Your task to perform on an android device: change the clock display to show seconds Image 0: 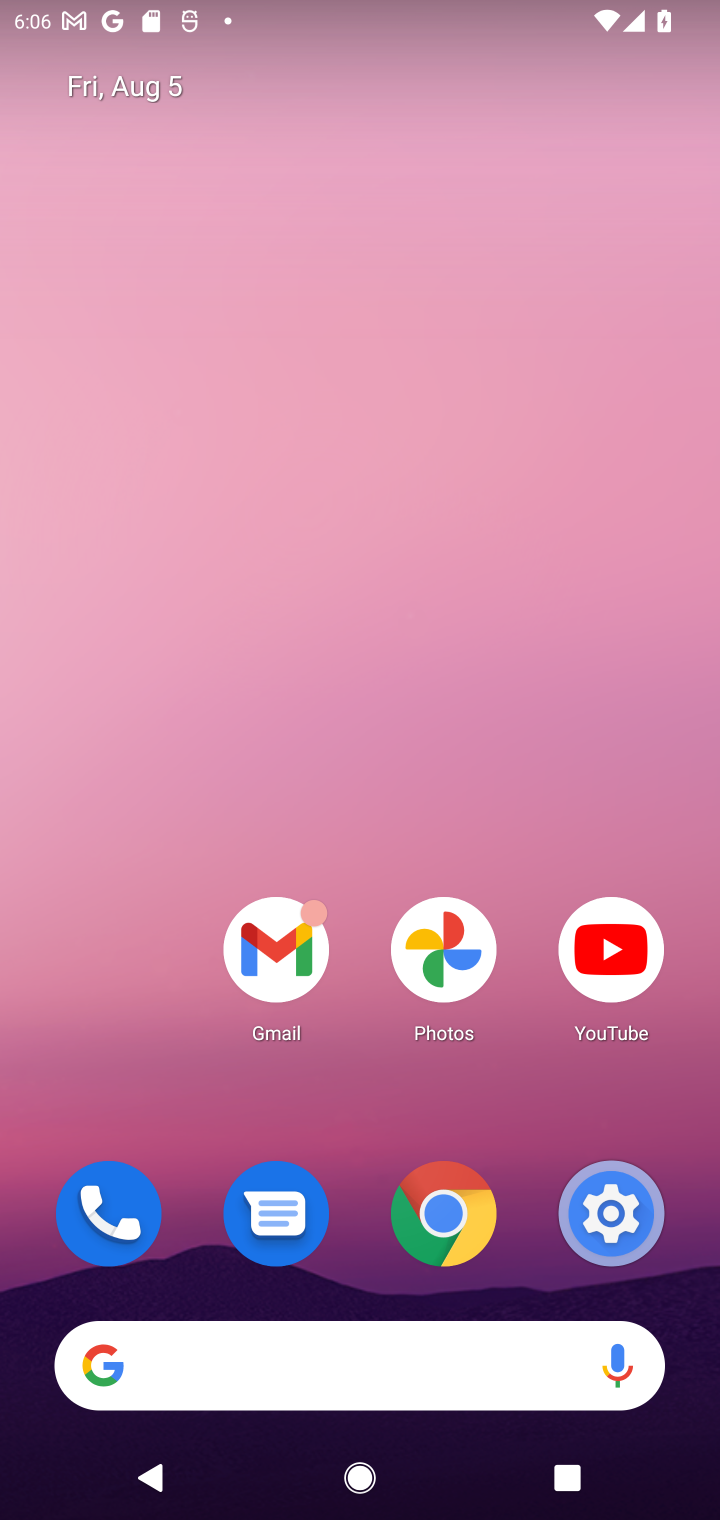
Step 0: drag from (362, 1294) to (366, 255)
Your task to perform on an android device: change the clock display to show seconds Image 1: 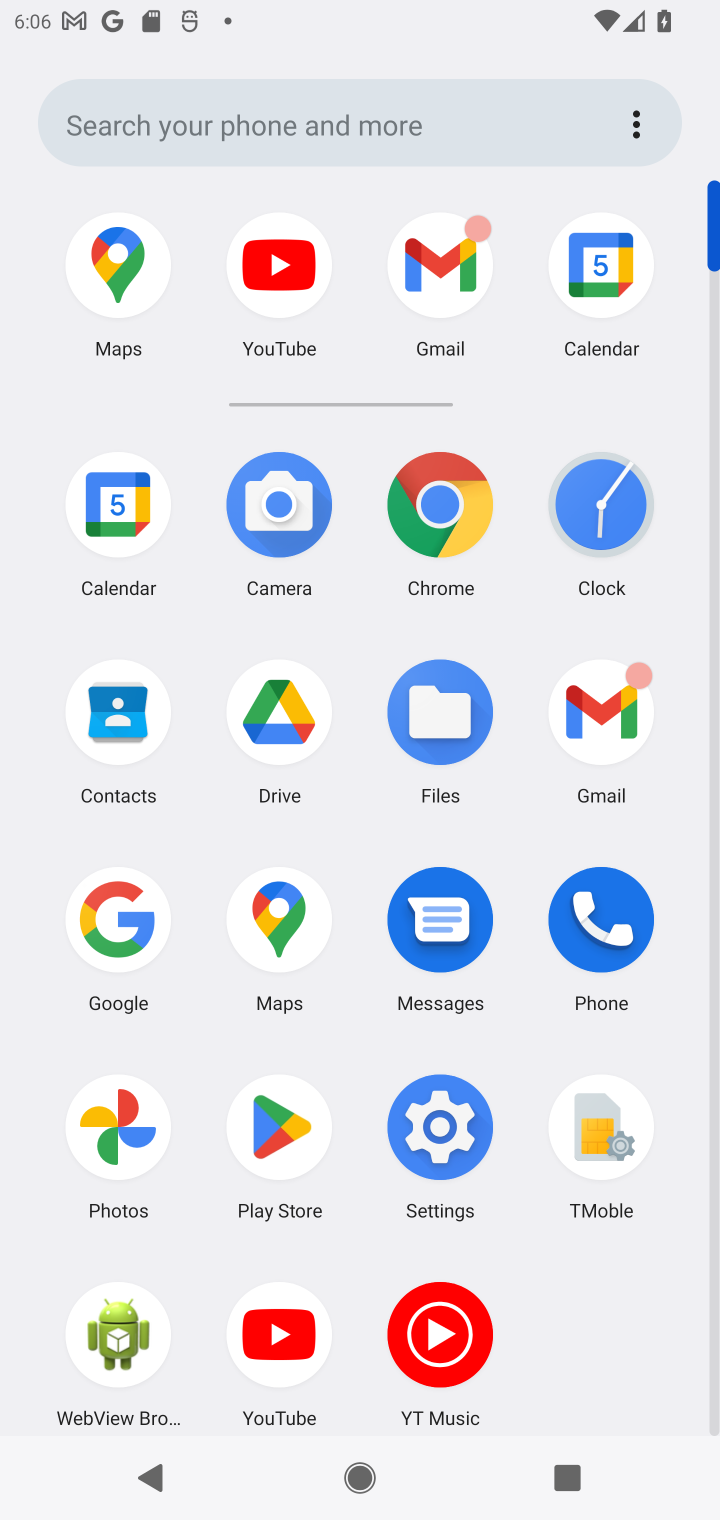
Step 1: click (594, 522)
Your task to perform on an android device: change the clock display to show seconds Image 2: 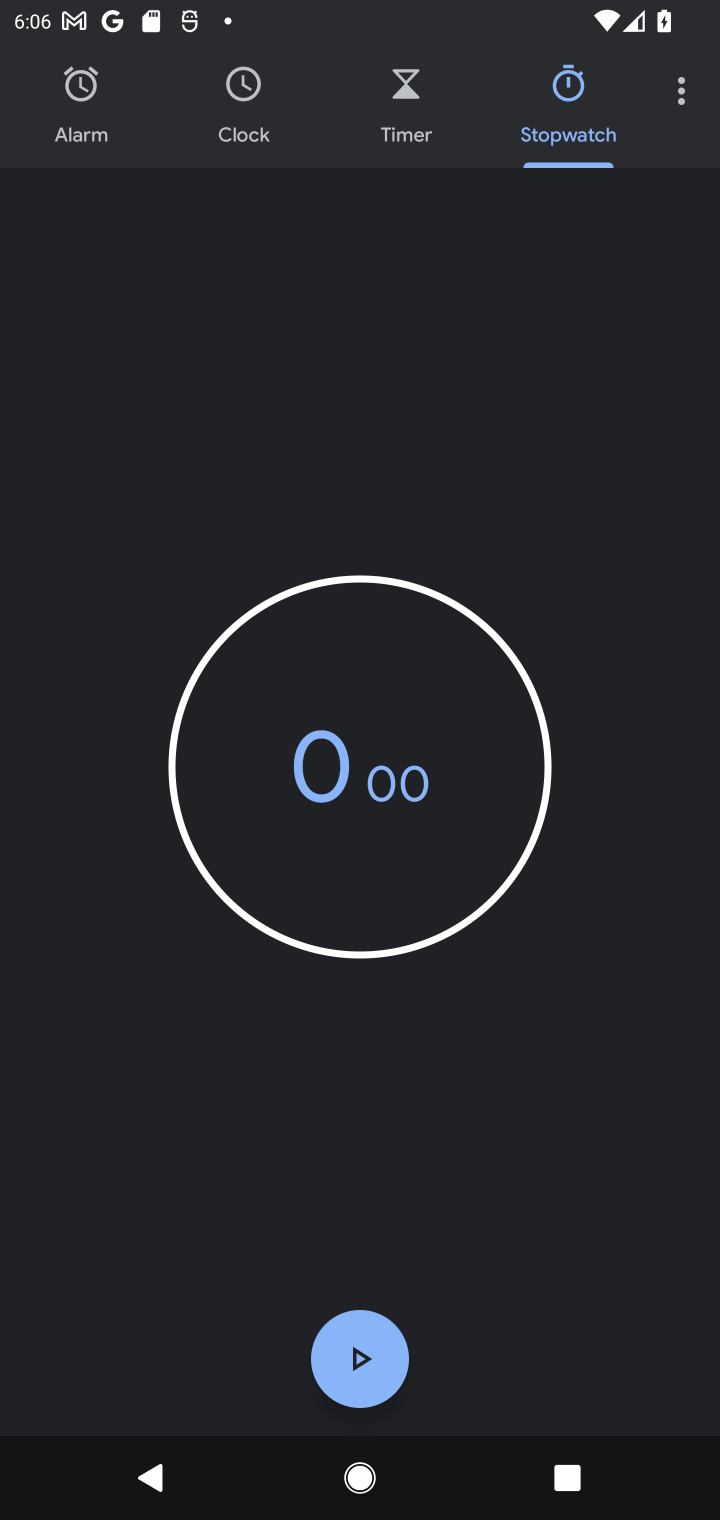
Step 2: task complete